Your task to perform on an android device: Open location settings Image 0: 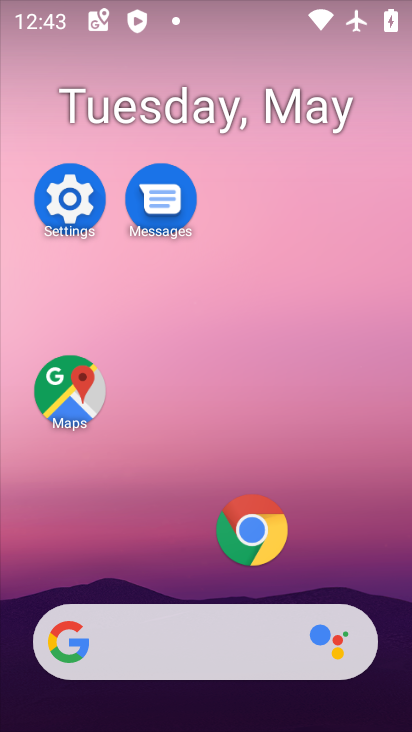
Step 0: drag from (188, 542) to (262, 183)
Your task to perform on an android device: Open location settings Image 1: 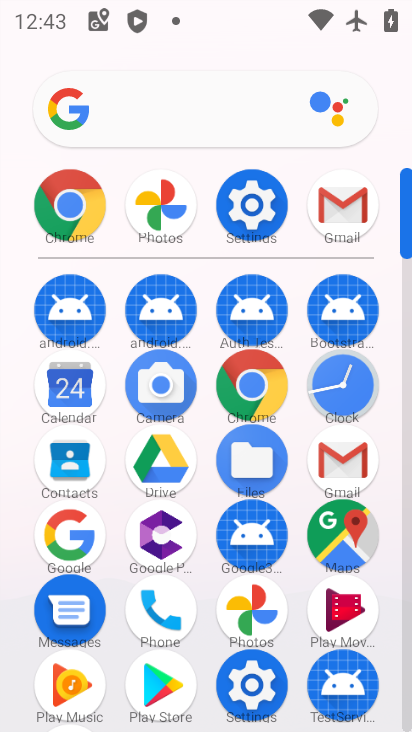
Step 1: click (243, 700)
Your task to perform on an android device: Open location settings Image 2: 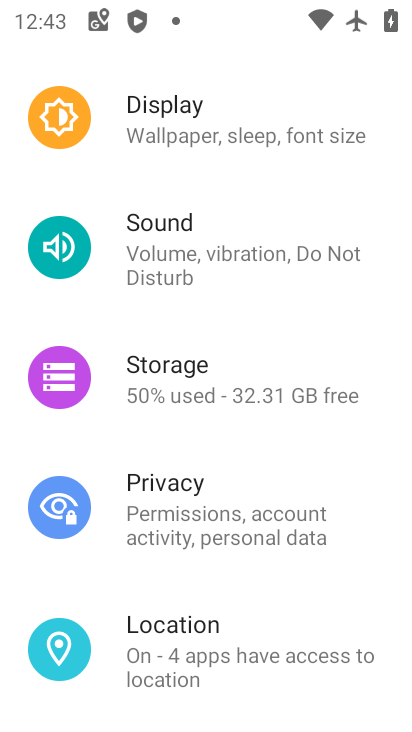
Step 2: click (219, 641)
Your task to perform on an android device: Open location settings Image 3: 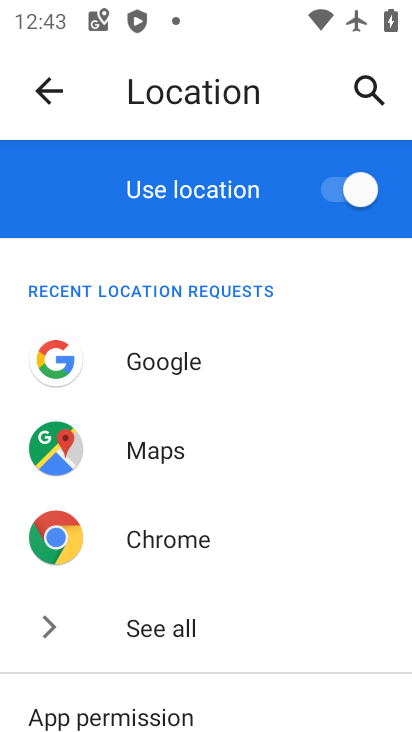
Step 3: task complete